Your task to perform on an android device: Open calendar and show me the first week of next month Image 0: 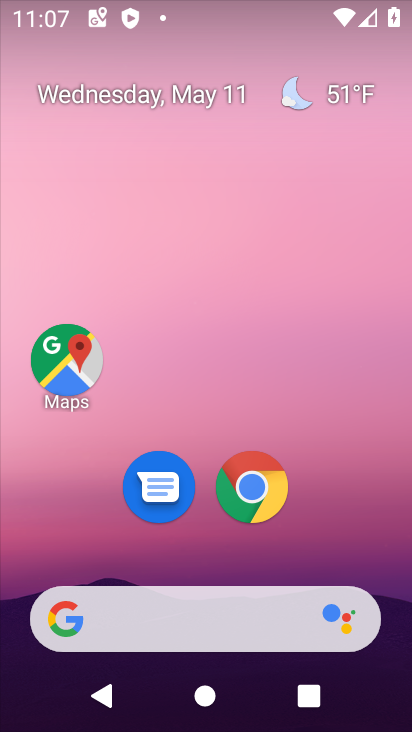
Step 0: drag from (374, 470) to (305, 112)
Your task to perform on an android device: Open calendar and show me the first week of next month Image 1: 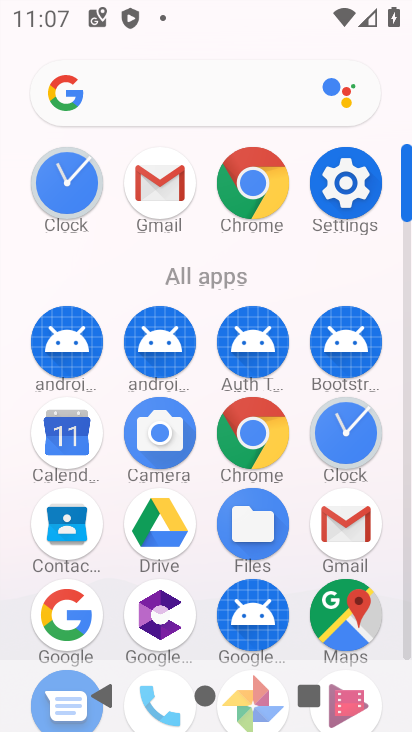
Step 1: click (70, 447)
Your task to perform on an android device: Open calendar and show me the first week of next month Image 2: 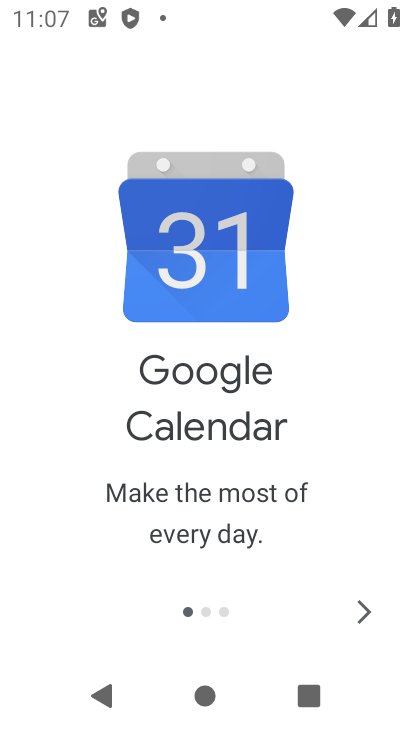
Step 2: click (372, 617)
Your task to perform on an android device: Open calendar and show me the first week of next month Image 3: 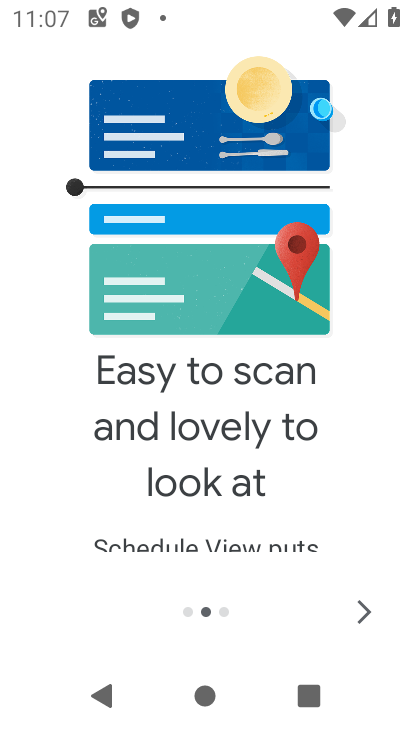
Step 3: click (372, 617)
Your task to perform on an android device: Open calendar and show me the first week of next month Image 4: 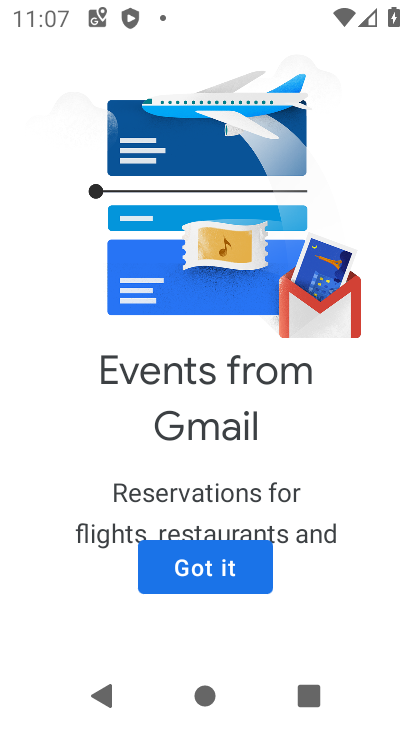
Step 4: click (158, 550)
Your task to perform on an android device: Open calendar and show me the first week of next month Image 5: 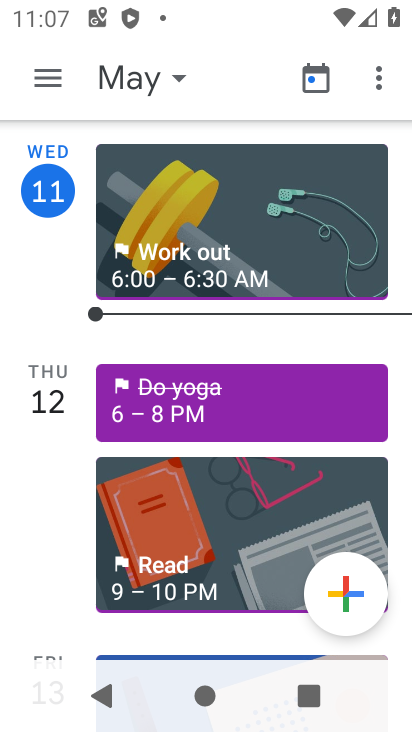
Step 5: click (149, 64)
Your task to perform on an android device: Open calendar and show me the first week of next month Image 6: 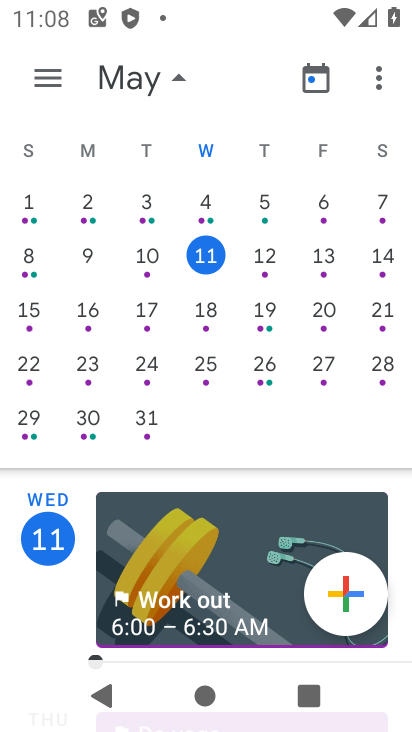
Step 6: drag from (378, 284) to (27, 219)
Your task to perform on an android device: Open calendar and show me the first week of next month Image 7: 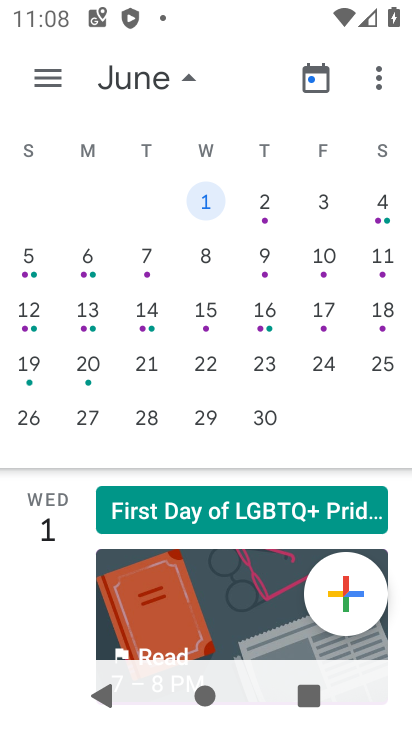
Step 7: click (79, 254)
Your task to perform on an android device: Open calendar and show me the first week of next month Image 8: 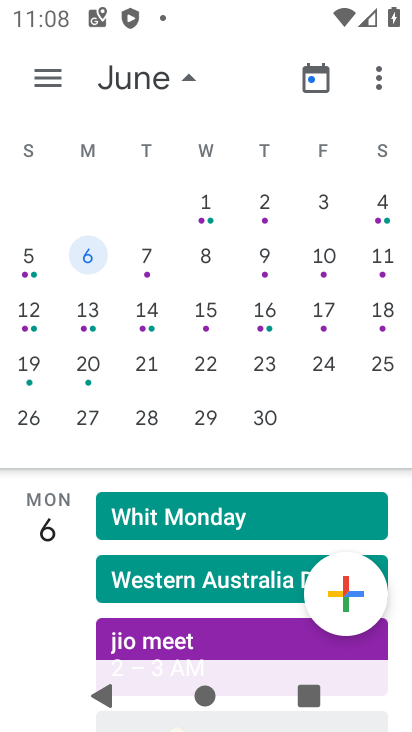
Step 8: click (47, 67)
Your task to perform on an android device: Open calendar and show me the first week of next month Image 9: 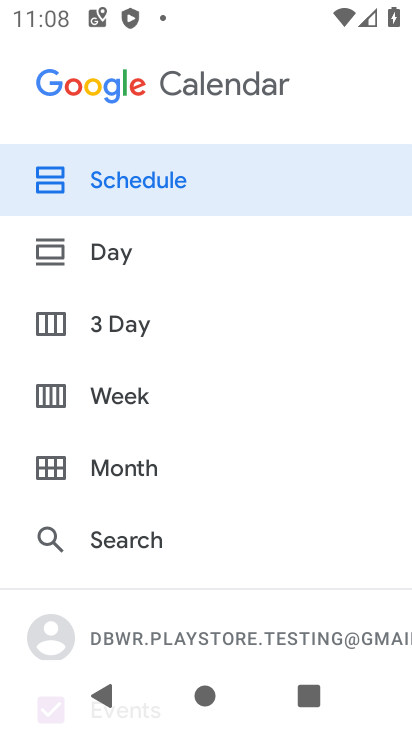
Step 9: click (176, 396)
Your task to perform on an android device: Open calendar and show me the first week of next month Image 10: 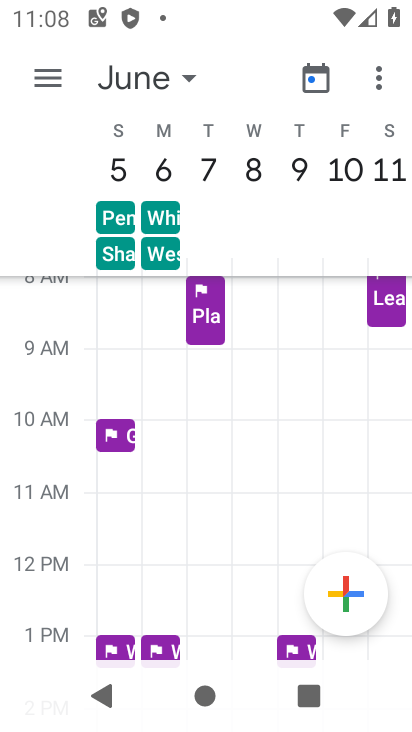
Step 10: task complete